Your task to perform on an android device: Turn off the flashlight Image 0: 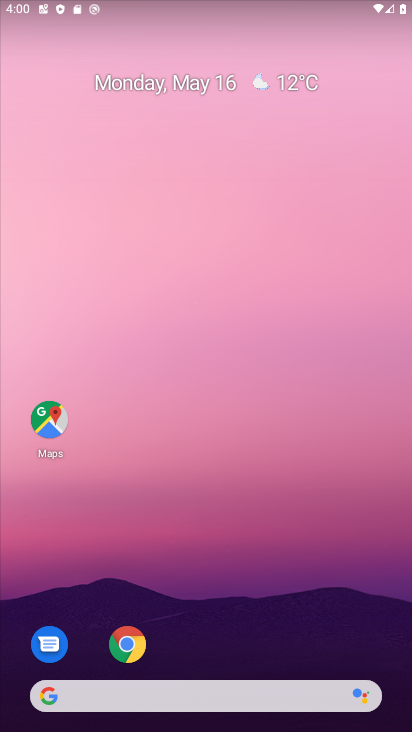
Step 0: drag from (213, 636) to (334, 117)
Your task to perform on an android device: Turn off the flashlight Image 1: 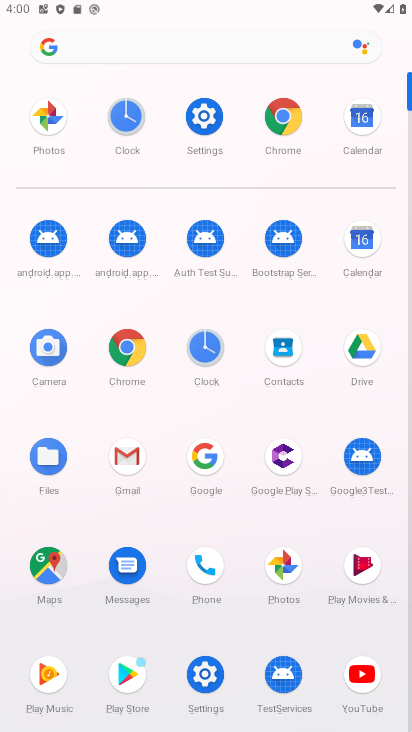
Step 1: click (204, 118)
Your task to perform on an android device: Turn off the flashlight Image 2: 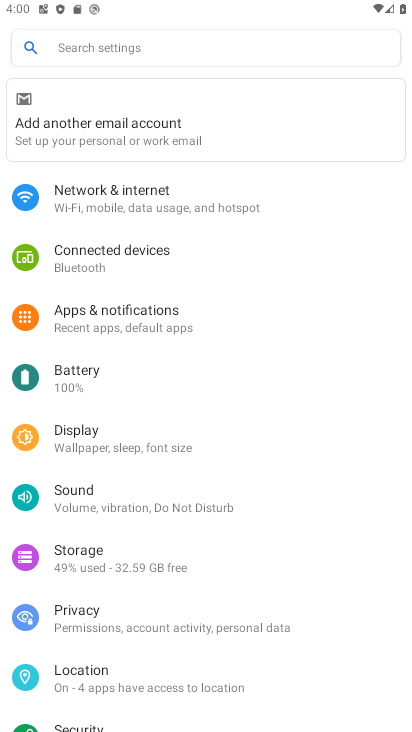
Step 2: click (125, 33)
Your task to perform on an android device: Turn off the flashlight Image 3: 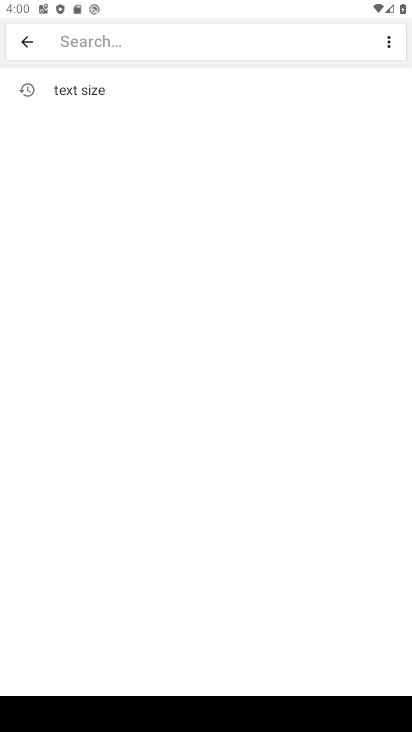
Step 3: type "flashlight"
Your task to perform on an android device: Turn off the flashlight Image 4: 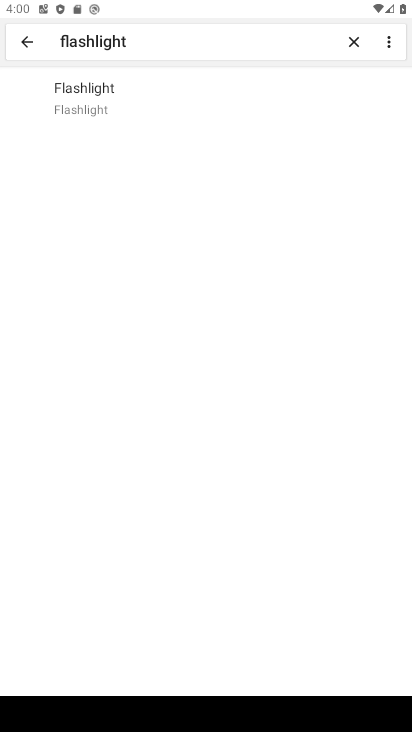
Step 4: click (94, 83)
Your task to perform on an android device: Turn off the flashlight Image 5: 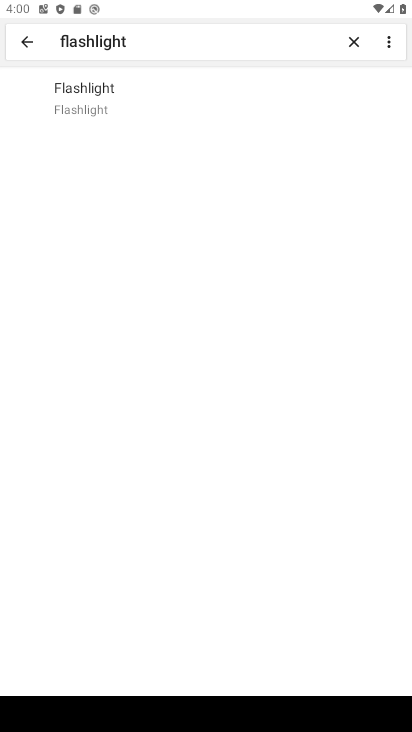
Step 5: task complete